Your task to perform on an android device: open chrome privacy settings Image 0: 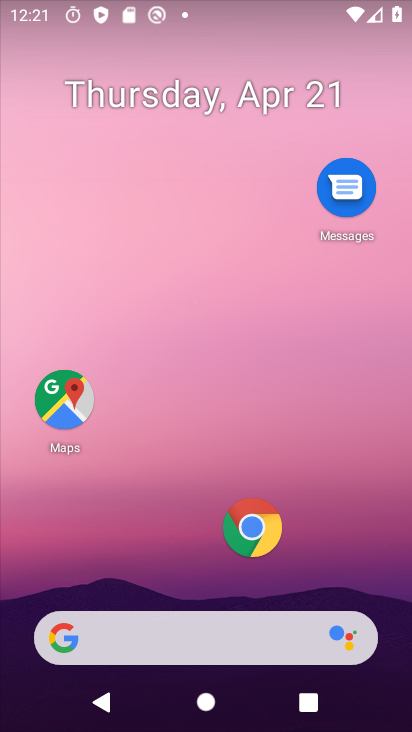
Step 0: click (250, 514)
Your task to perform on an android device: open chrome privacy settings Image 1: 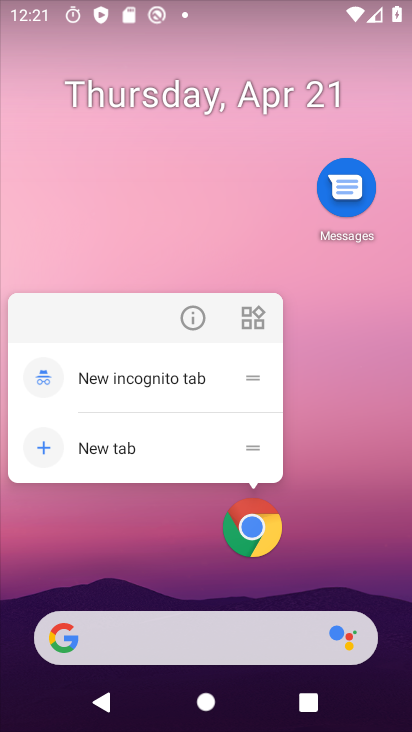
Step 1: click (250, 514)
Your task to perform on an android device: open chrome privacy settings Image 2: 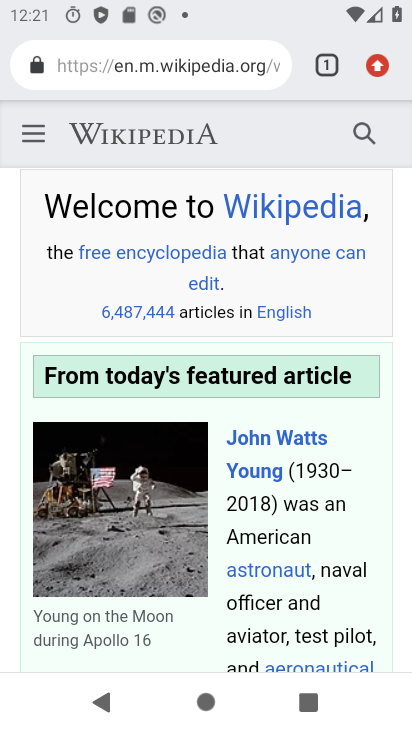
Step 2: drag from (315, 613) to (374, 430)
Your task to perform on an android device: open chrome privacy settings Image 3: 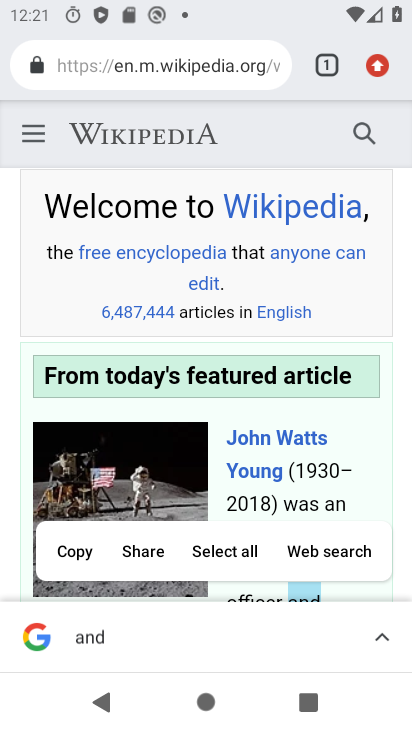
Step 3: click (368, 53)
Your task to perform on an android device: open chrome privacy settings Image 4: 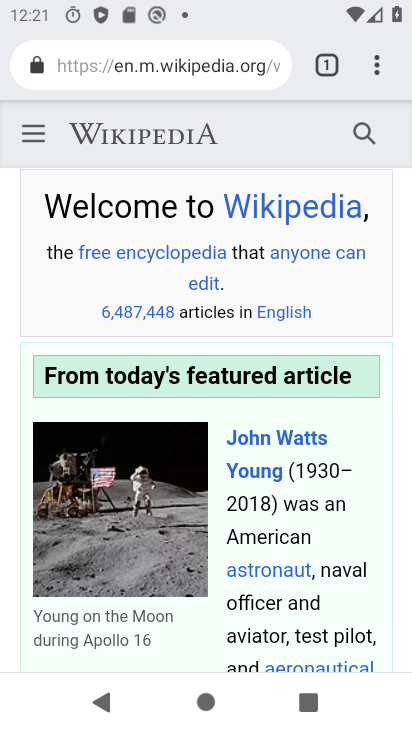
Step 4: click (373, 65)
Your task to perform on an android device: open chrome privacy settings Image 5: 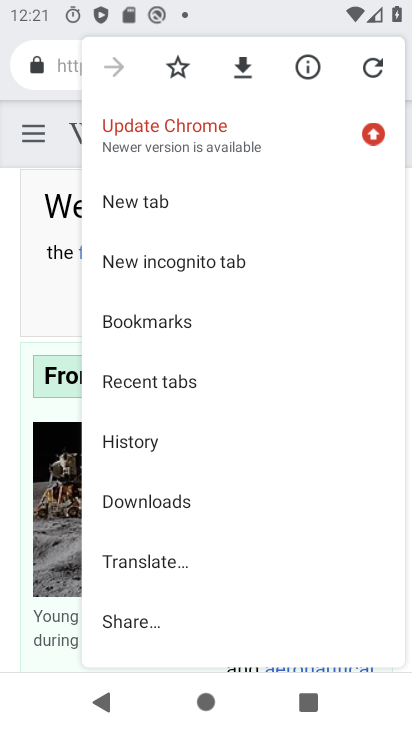
Step 5: drag from (153, 527) to (180, 373)
Your task to perform on an android device: open chrome privacy settings Image 6: 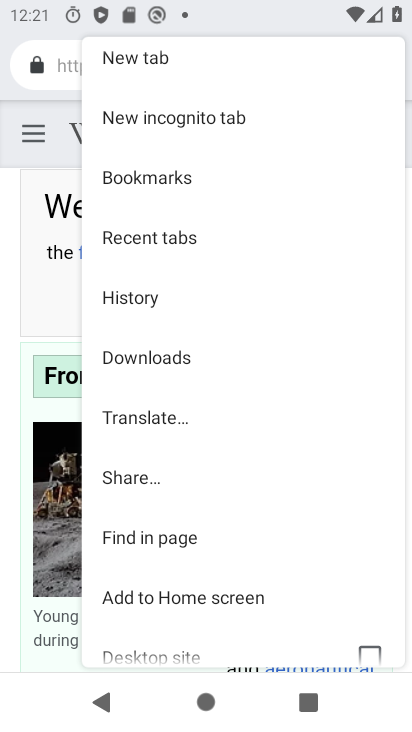
Step 6: drag from (142, 500) to (165, 385)
Your task to perform on an android device: open chrome privacy settings Image 7: 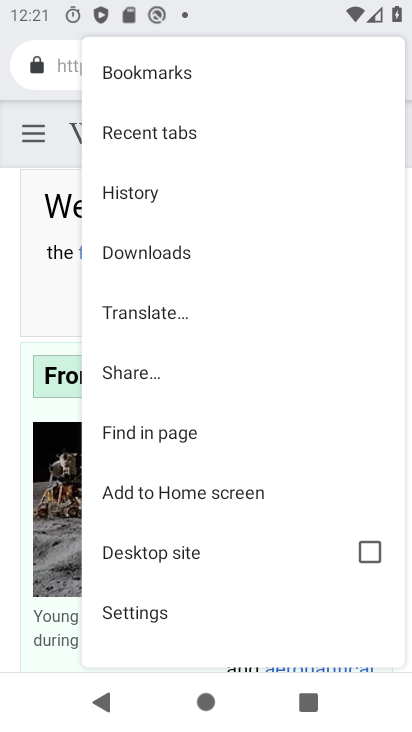
Step 7: click (130, 600)
Your task to perform on an android device: open chrome privacy settings Image 8: 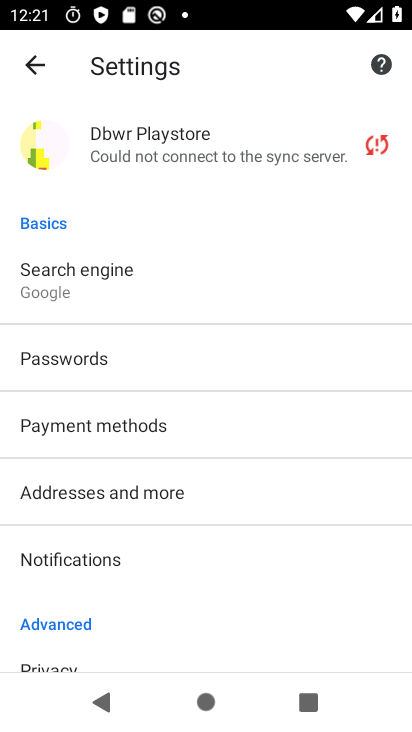
Step 8: drag from (130, 600) to (120, 439)
Your task to perform on an android device: open chrome privacy settings Image 9: 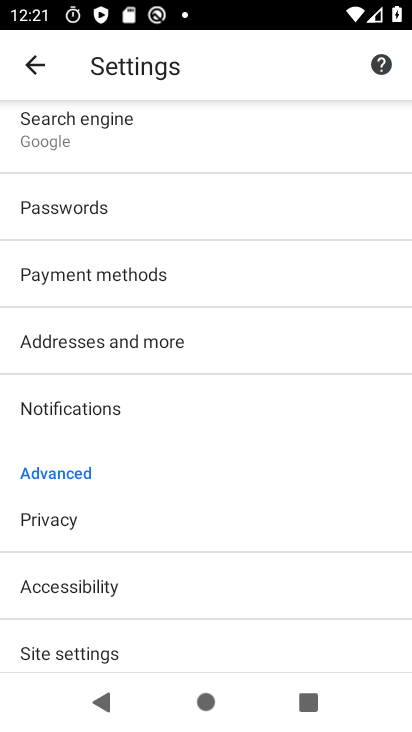
Step 9: click (119, 515)
Your task to perform on an android device: open chrome privacy settings Image 10: 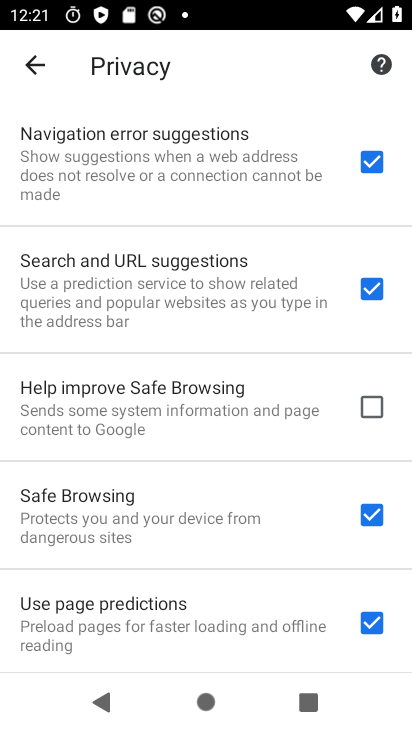
Step 10: task complete